Your task to perform on an android device: change your default location settings in chrome Image 0: 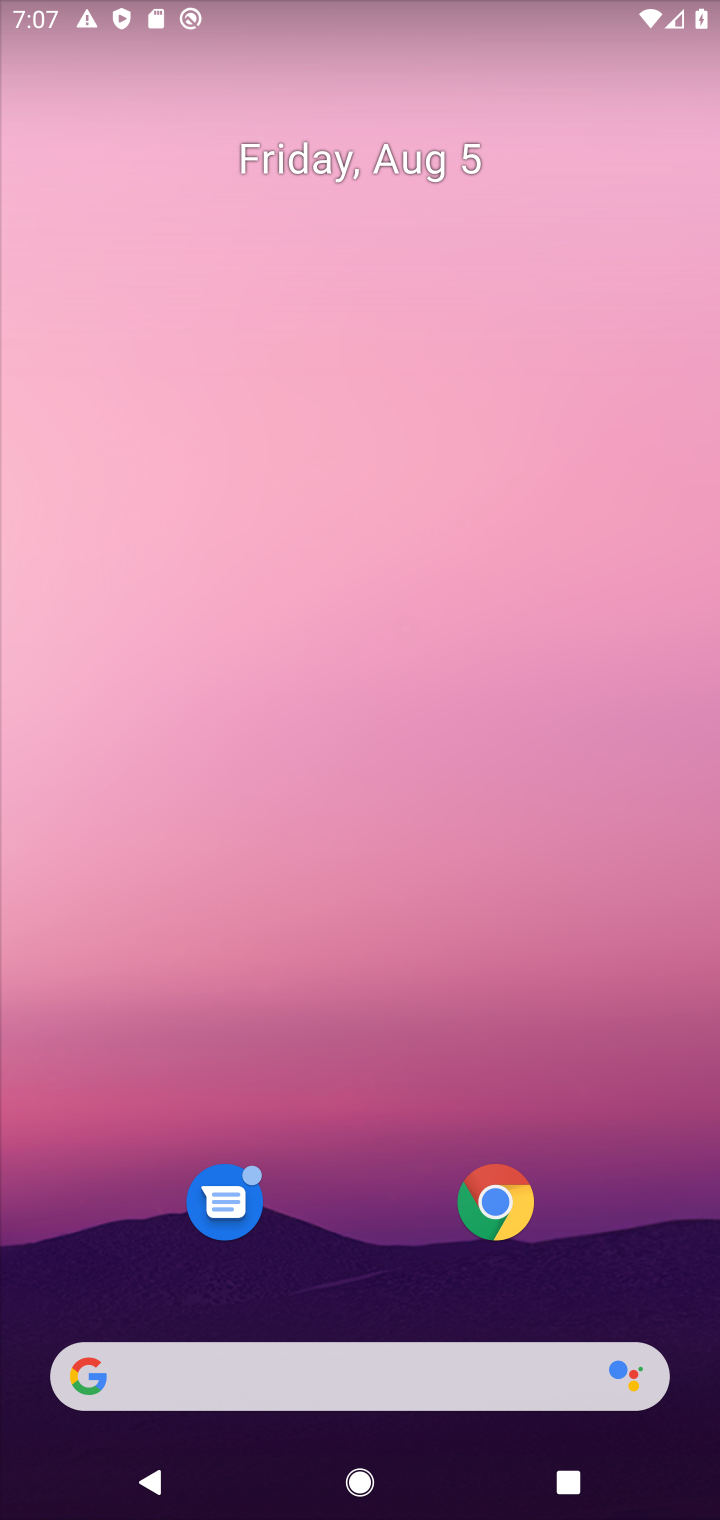
Step 0: drag from (368, 1356) to (535, 563)
Your task to perform on an android device: change your default location settings in chrome Image 1: 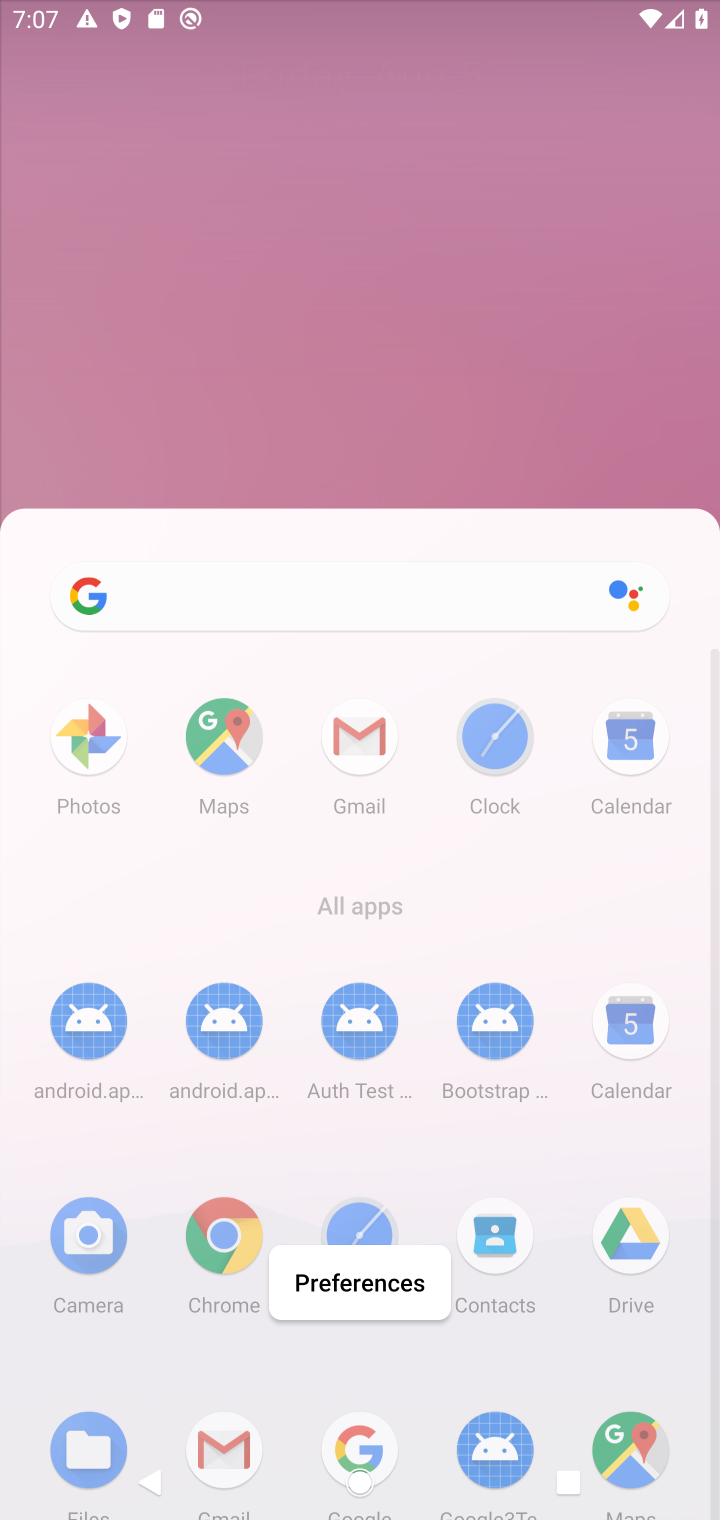
Step 1: drag from (475, 1212) to (581, 336)
Your task to perform on an android device: change your default location settings in chrome Image 2: 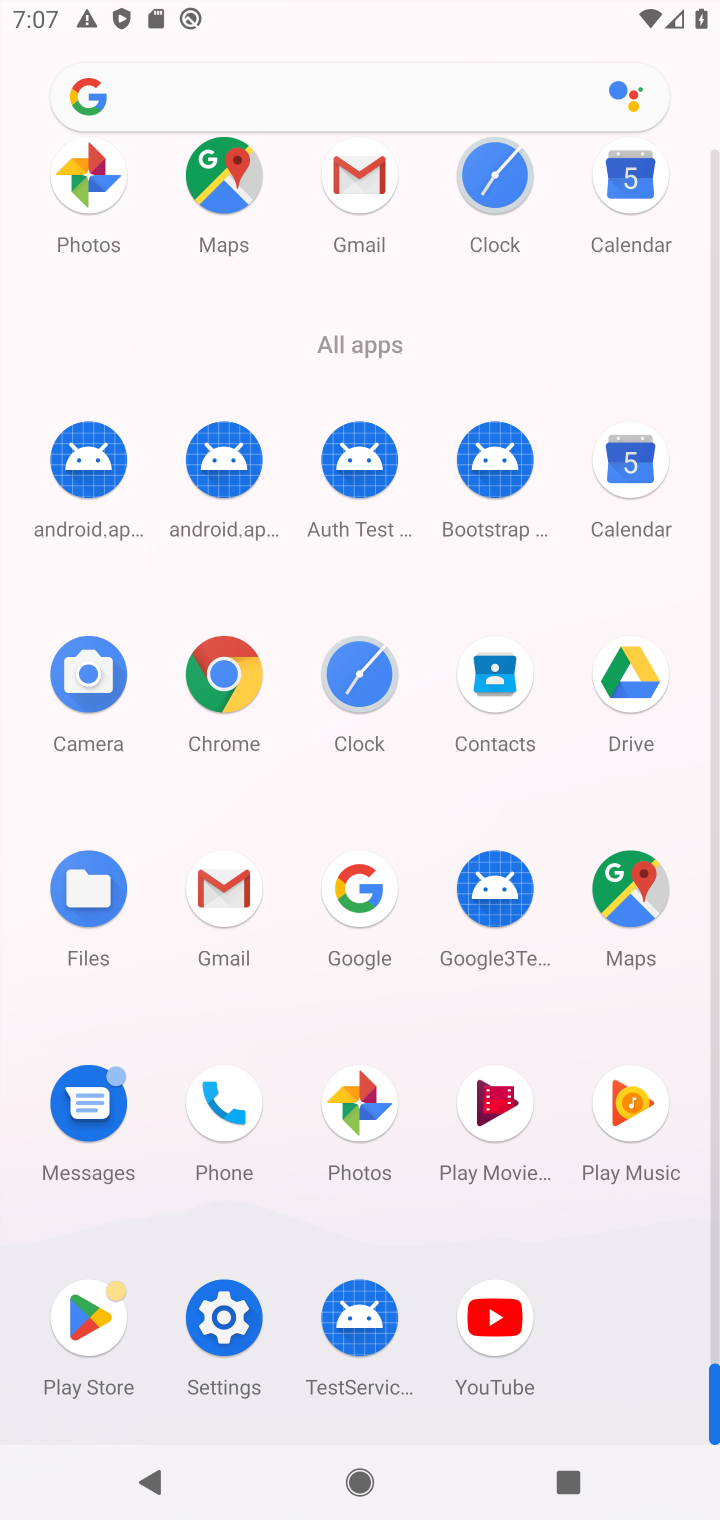
Step 2: click (203, 663)
Your task to perform on an android device: change your default location settings in chrome Image 3: 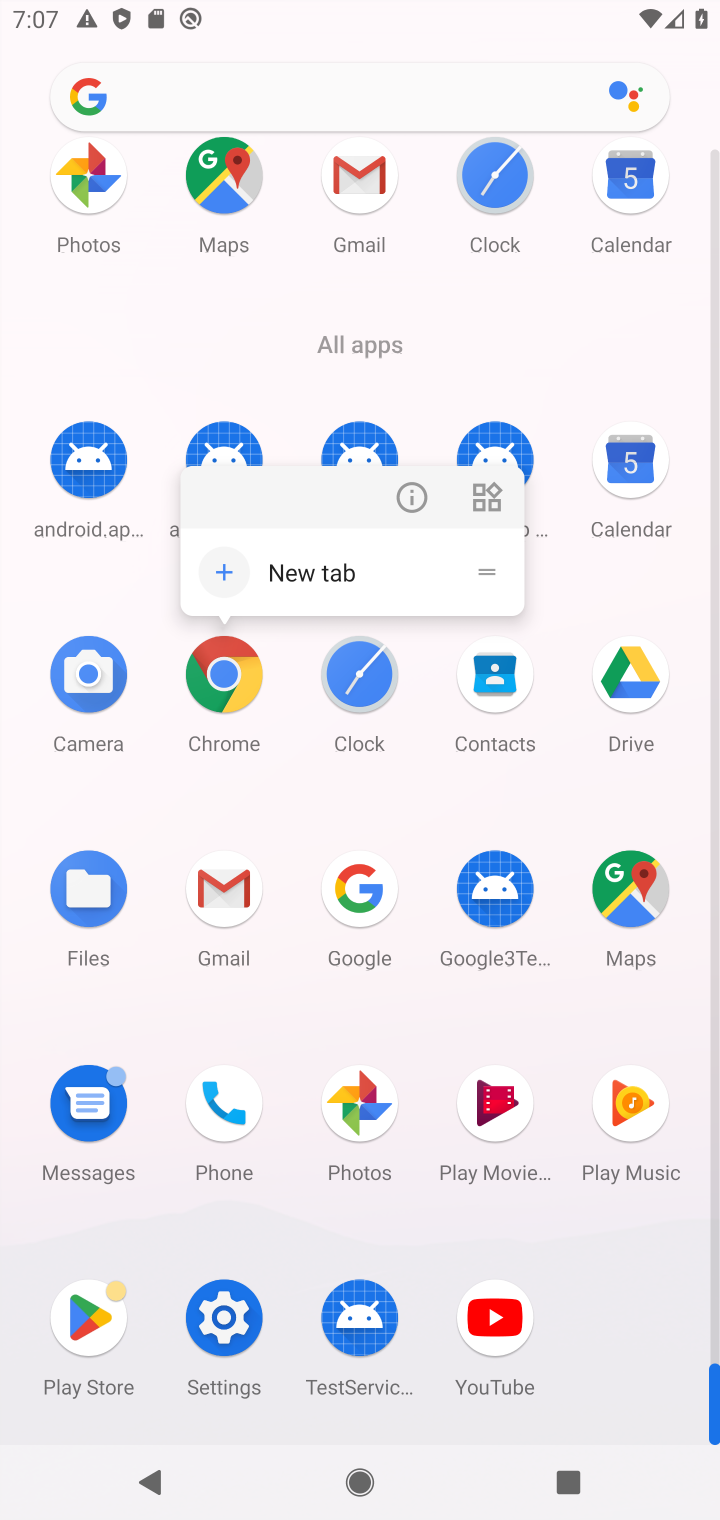
Step 3: click (418, 491)
Your task to perform on an android device: change your default location settings in chrome Image 4: 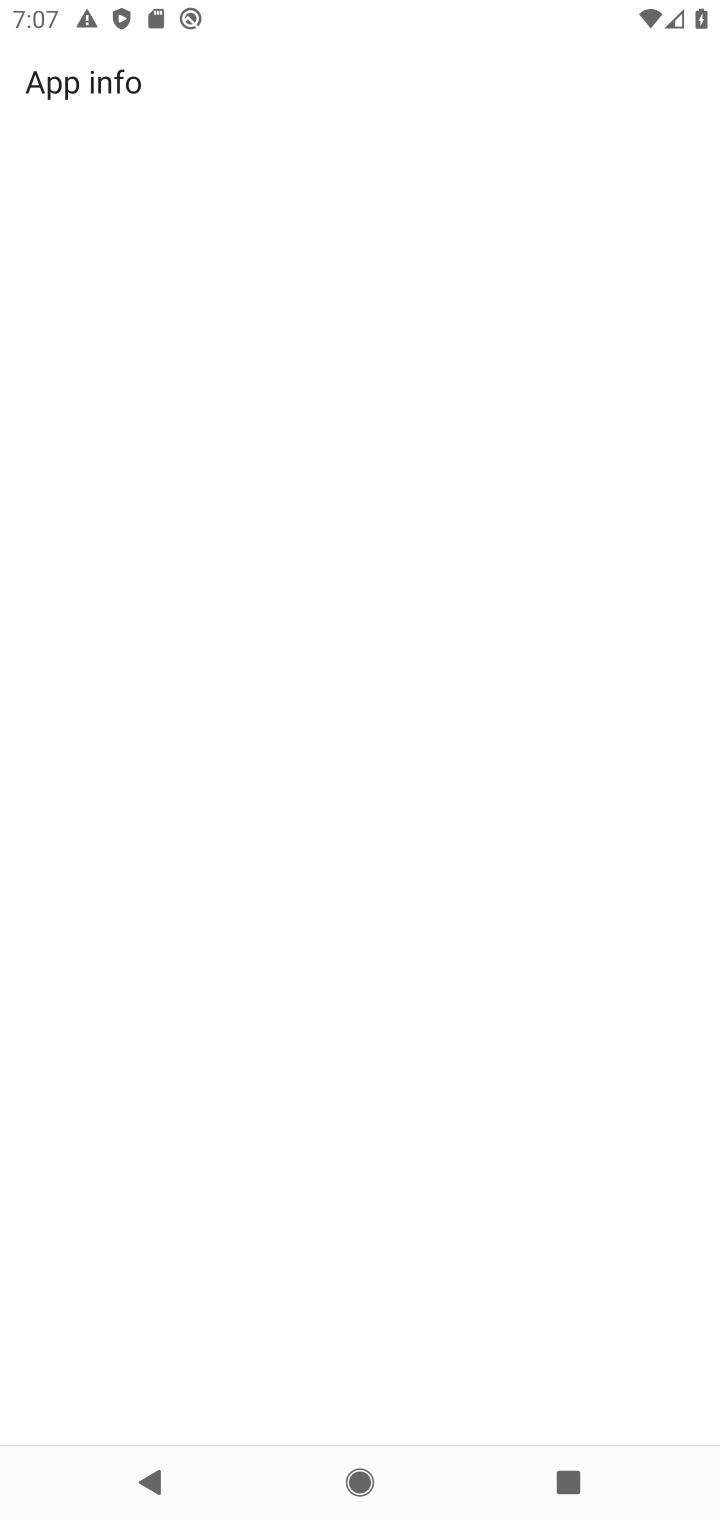
Step 4: drag from (443, 1161) to (460, 548)
Your task to perform on an android device: change your default location settings in chrome Image 5: 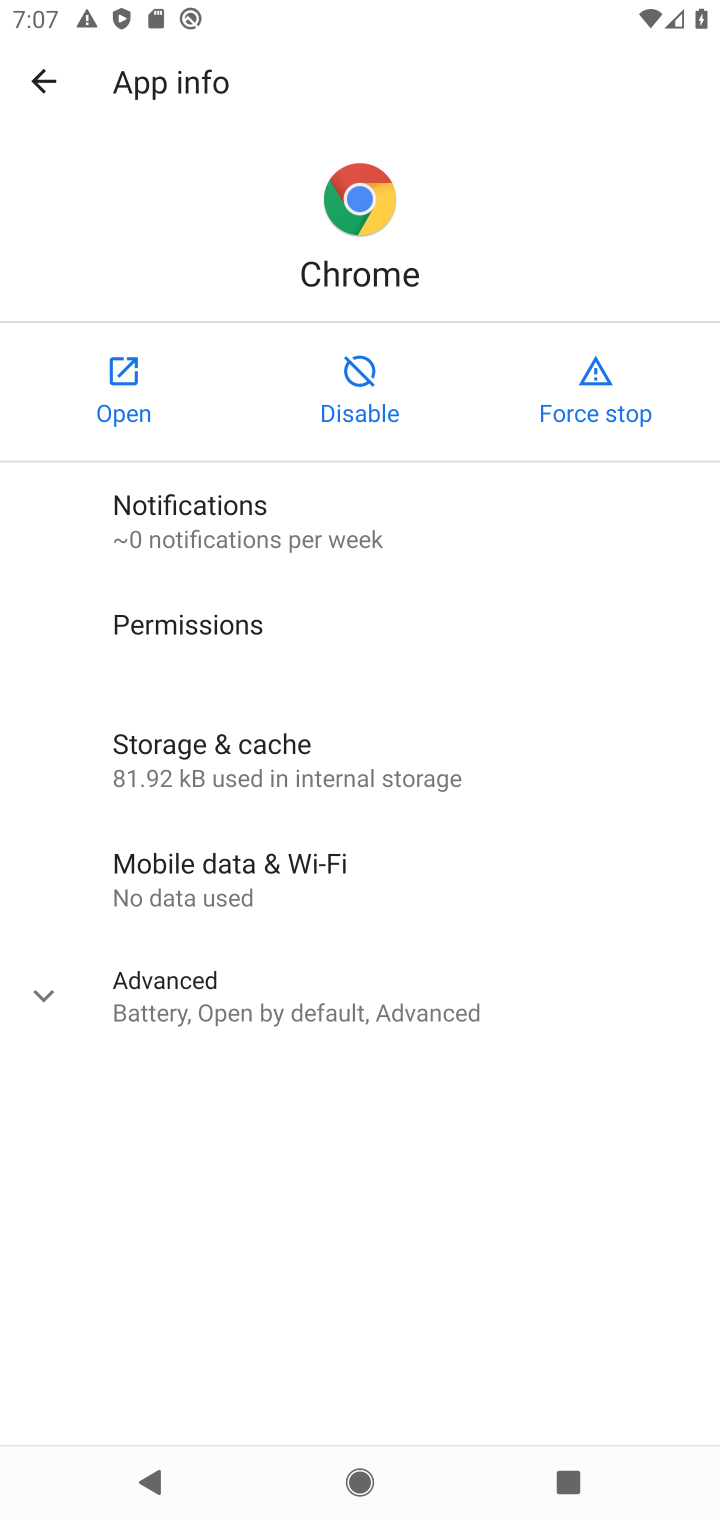
Step 5: click (126, 382)
Your task to perform on an android device: change your default location settings in chrome Image 6: 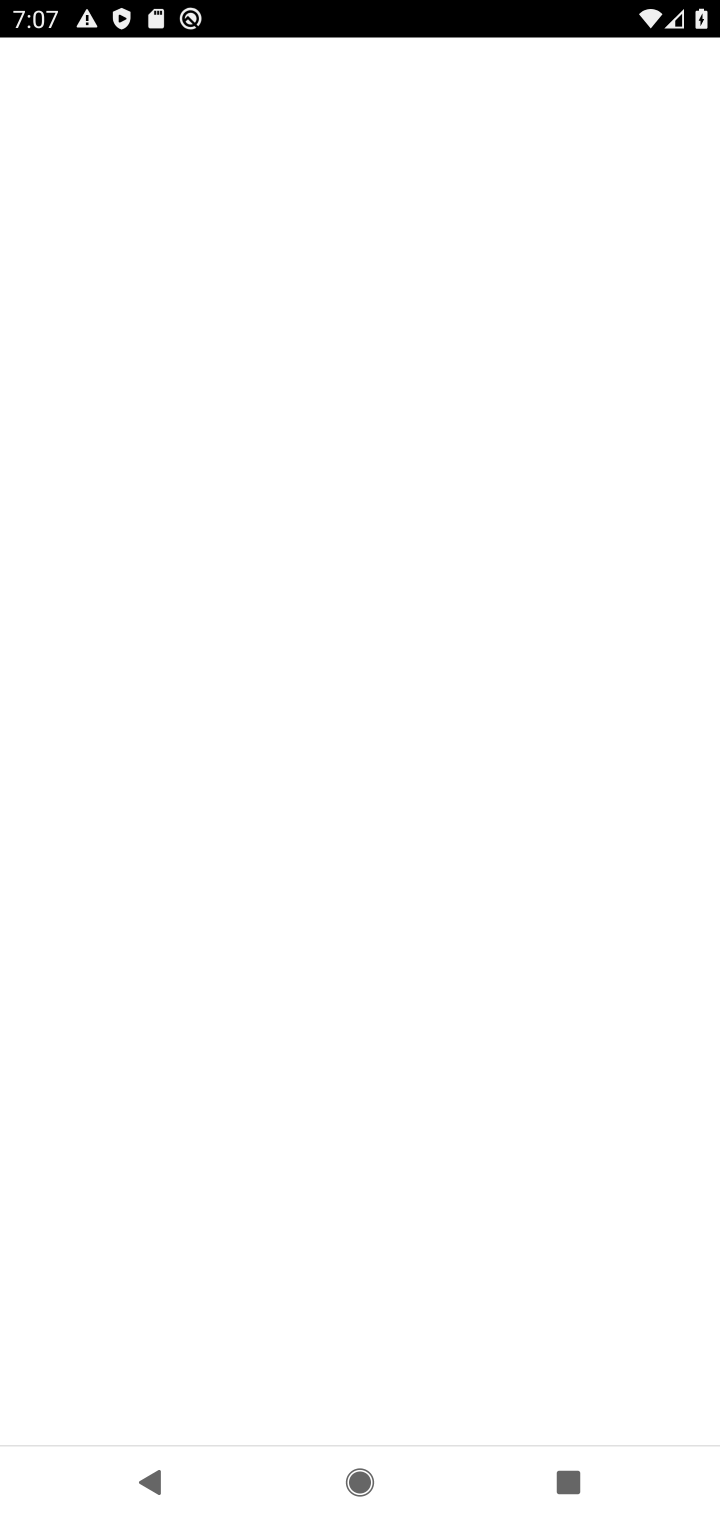
Step 6: drag from (393, 1038) to (441, 259)
Your task to perform on an android device: change your default location settings in chrome Image 7: 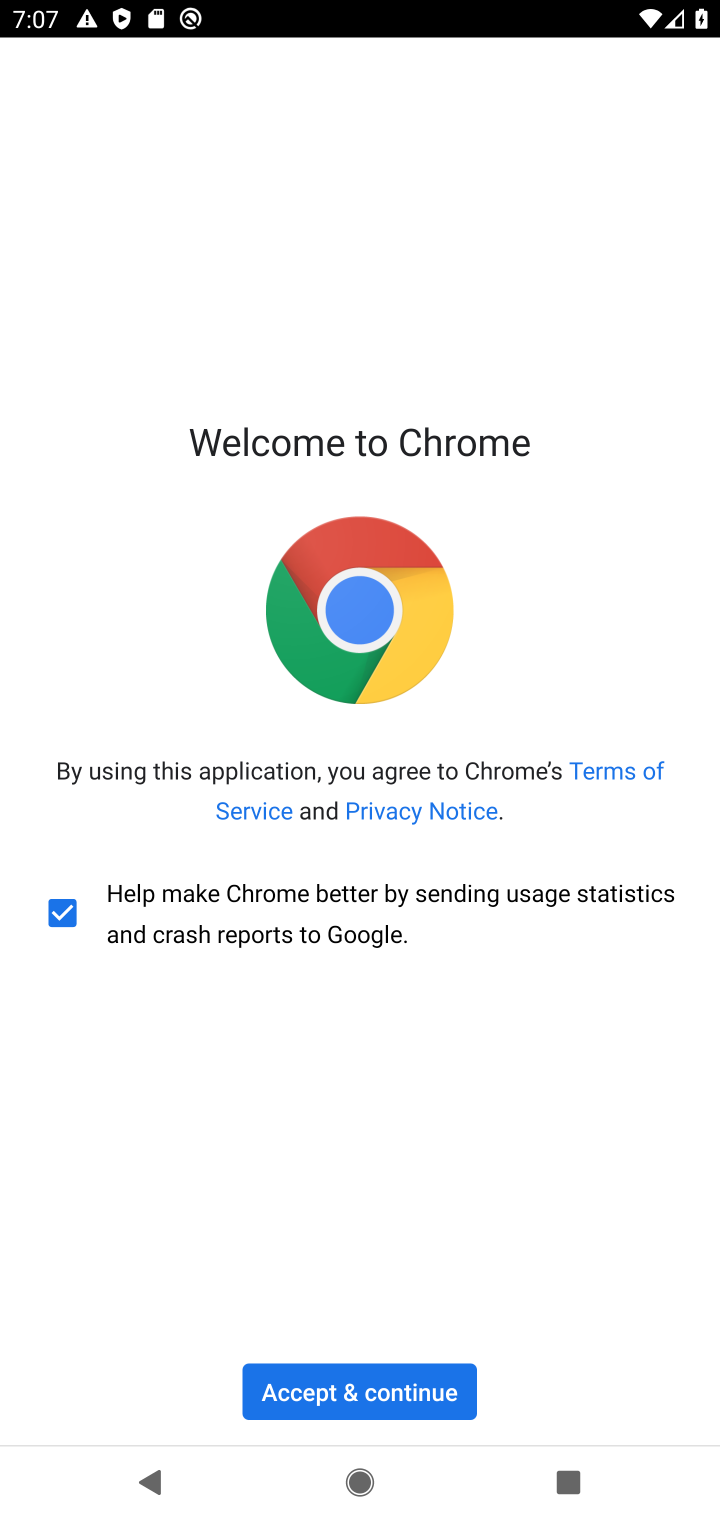
Step 7: click (338, 1387)
Your task to perform on an android device: change your default location settings in chrome Image 8: 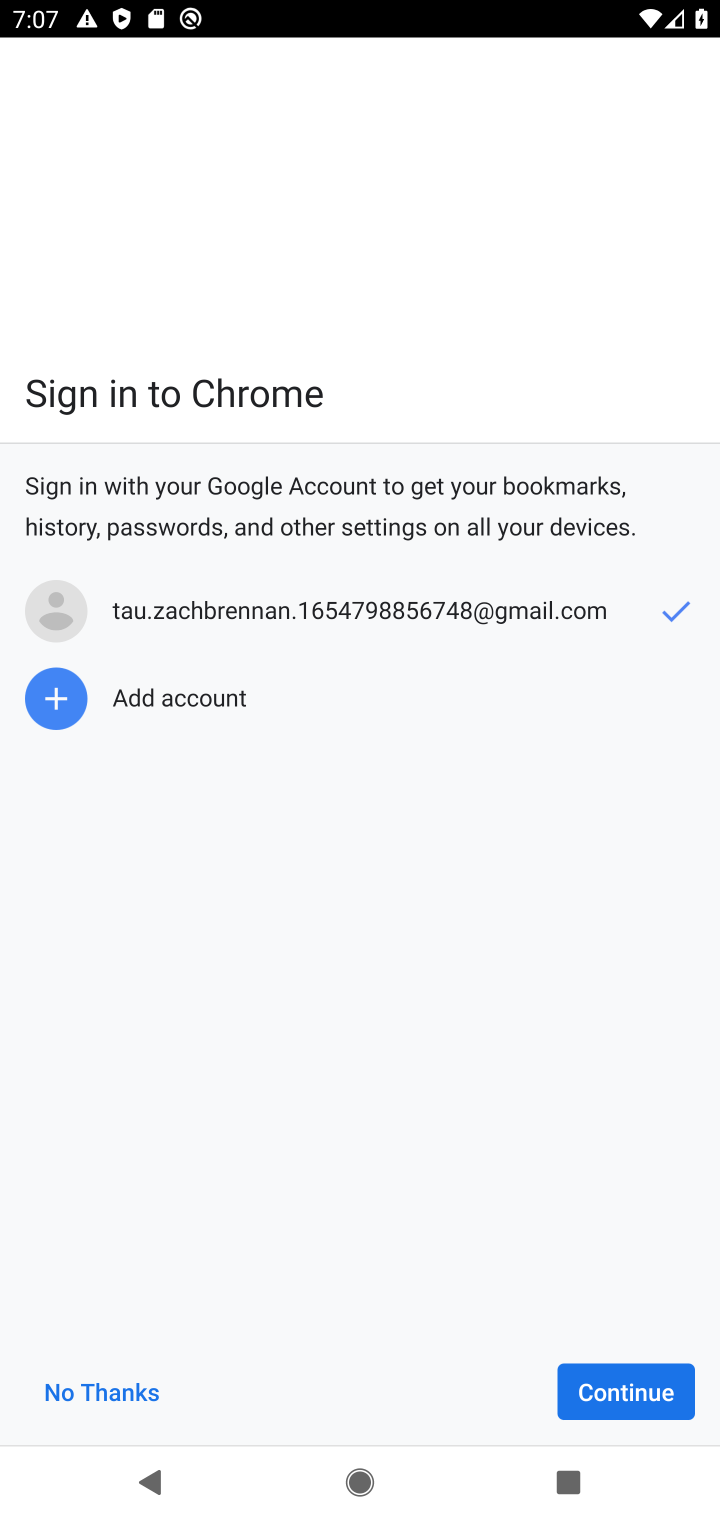
Step 8: click (602, 1397)
Your task to perform on an android device: change your default location settings in chrome Image 9: 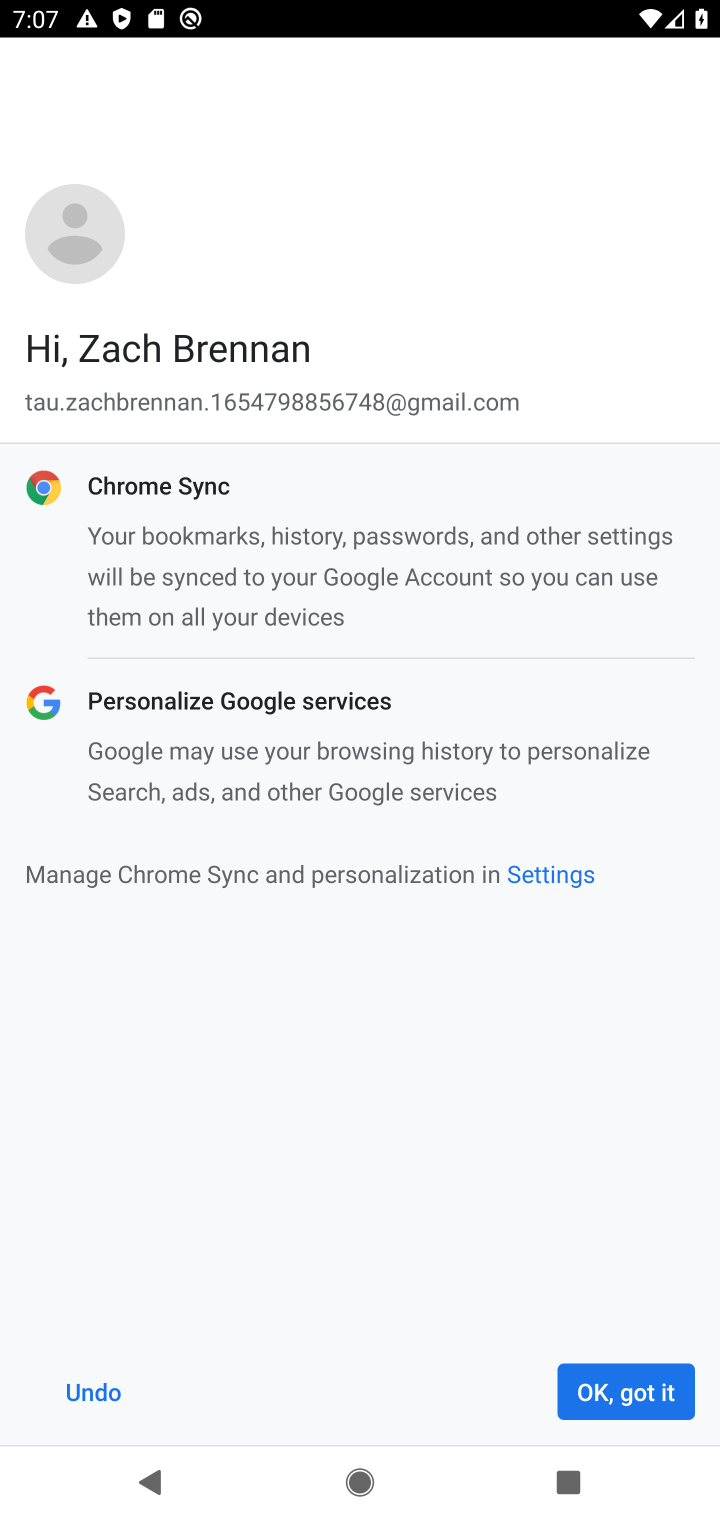
Step 9: click (578, 1397)
Your task to perform on an android device: change your default location settings in chrome Image 10: 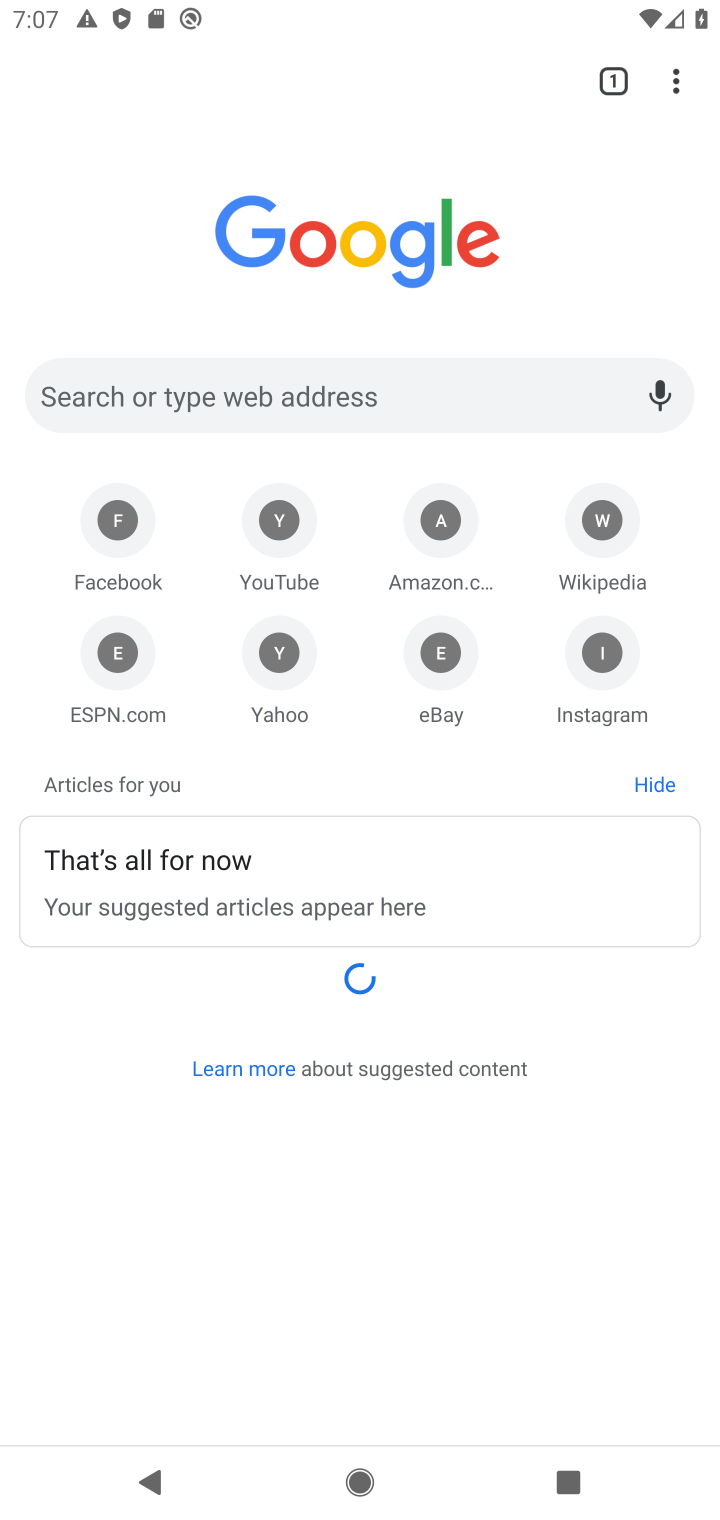
Step 10: drag from (340, 1179) to (492, 518)
Your task to perform on an android device: change your default location settings in chrome Image 11: 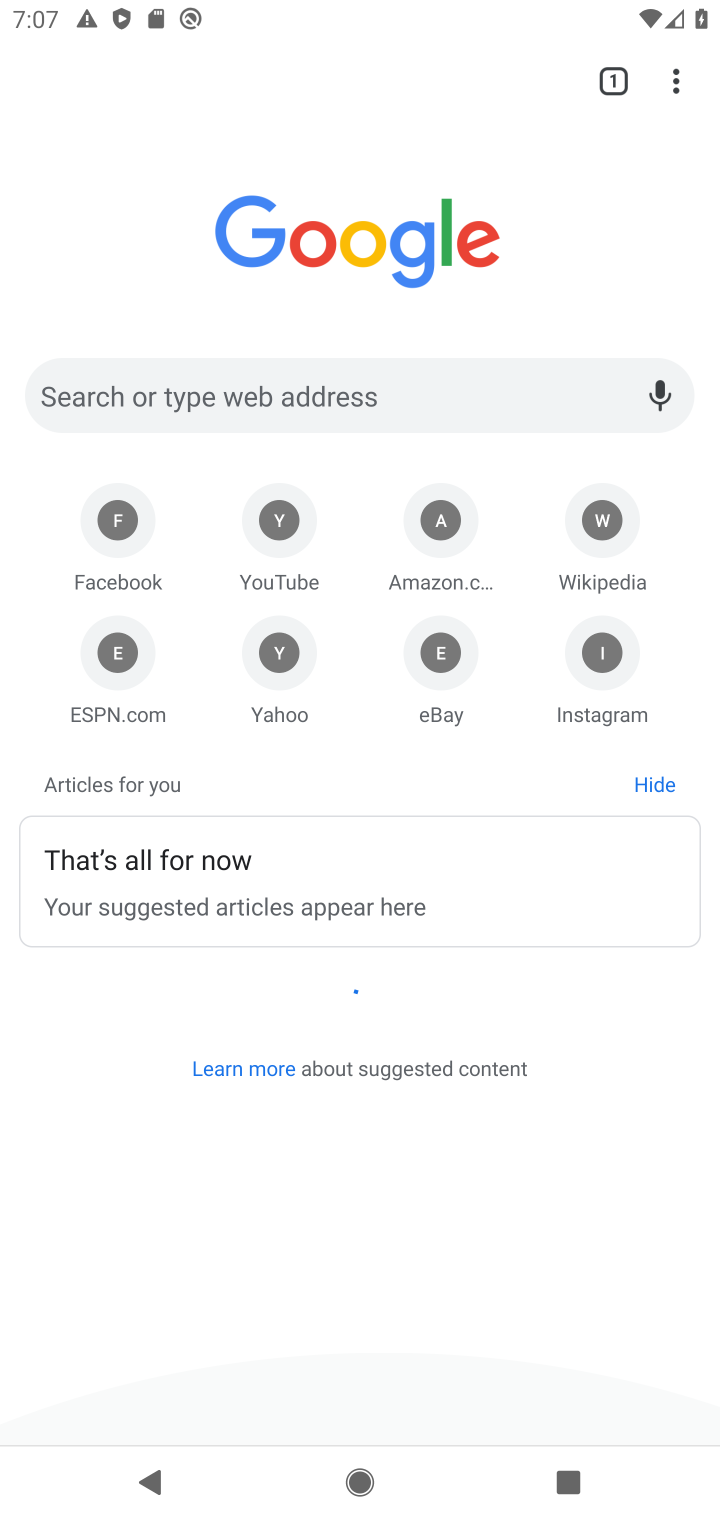
Step 11: drag from (425, 1090) to (439, 1330)
Your task to perform on an android device: change your default location settings in chrome Image 12: 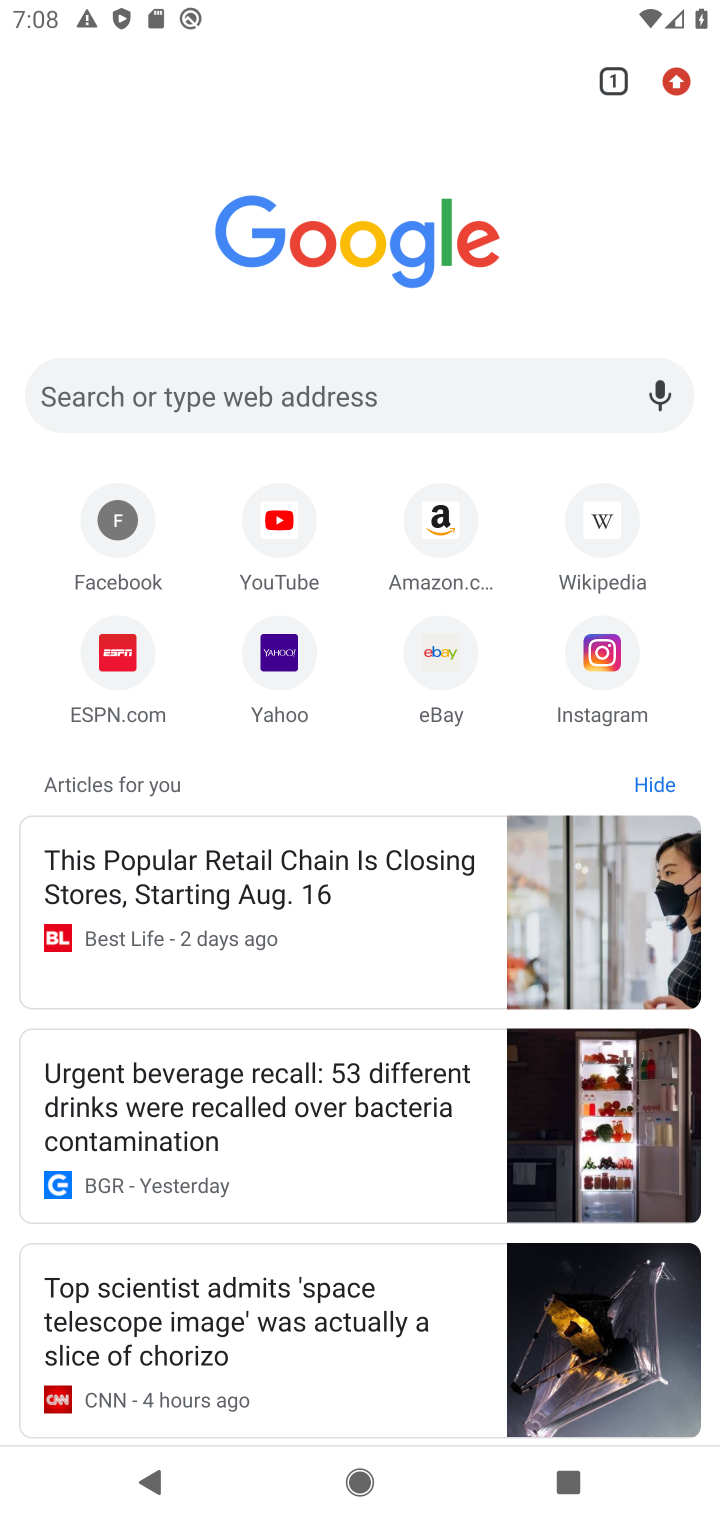
Step 12: drag from (685, 73) to (475, 745)
Your task to perform on an android device: change your default location settings in chrome Image 13: 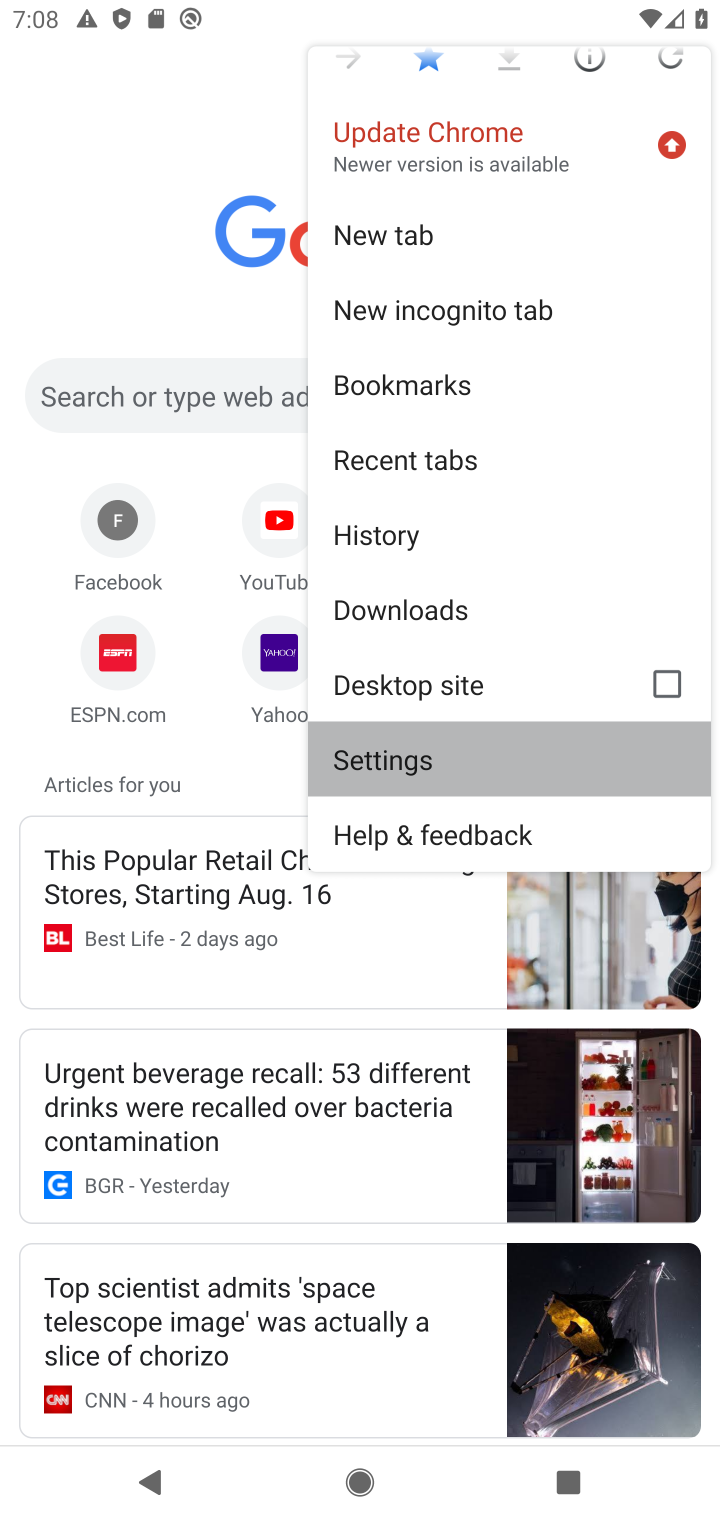
Step 13: click (468, 741)
Your task to perform on an android device: change your default location settings in chrome Image 14: 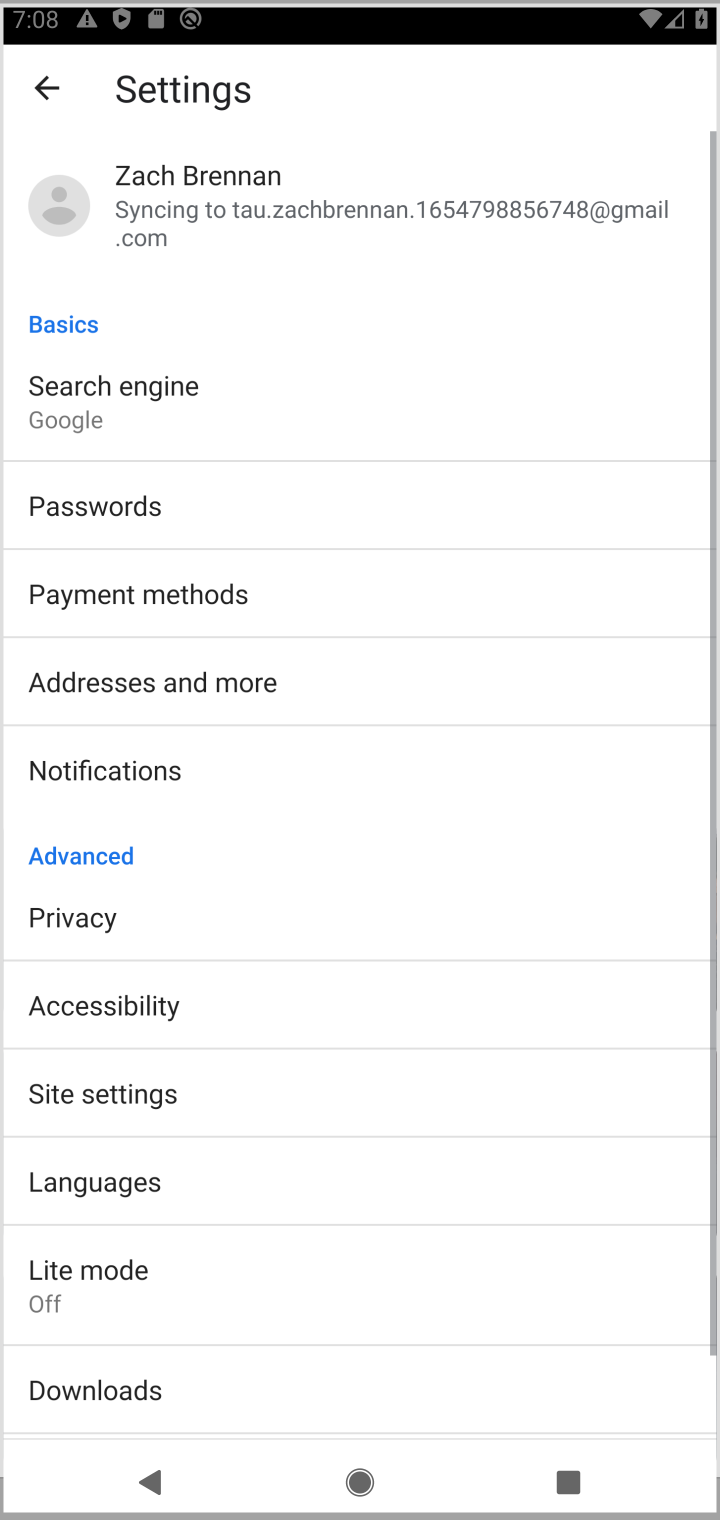
Step 14: drag from (275, 1160) to (380, 400)
Your task to perform on an android device: change your default location settings in chrome Image 15: 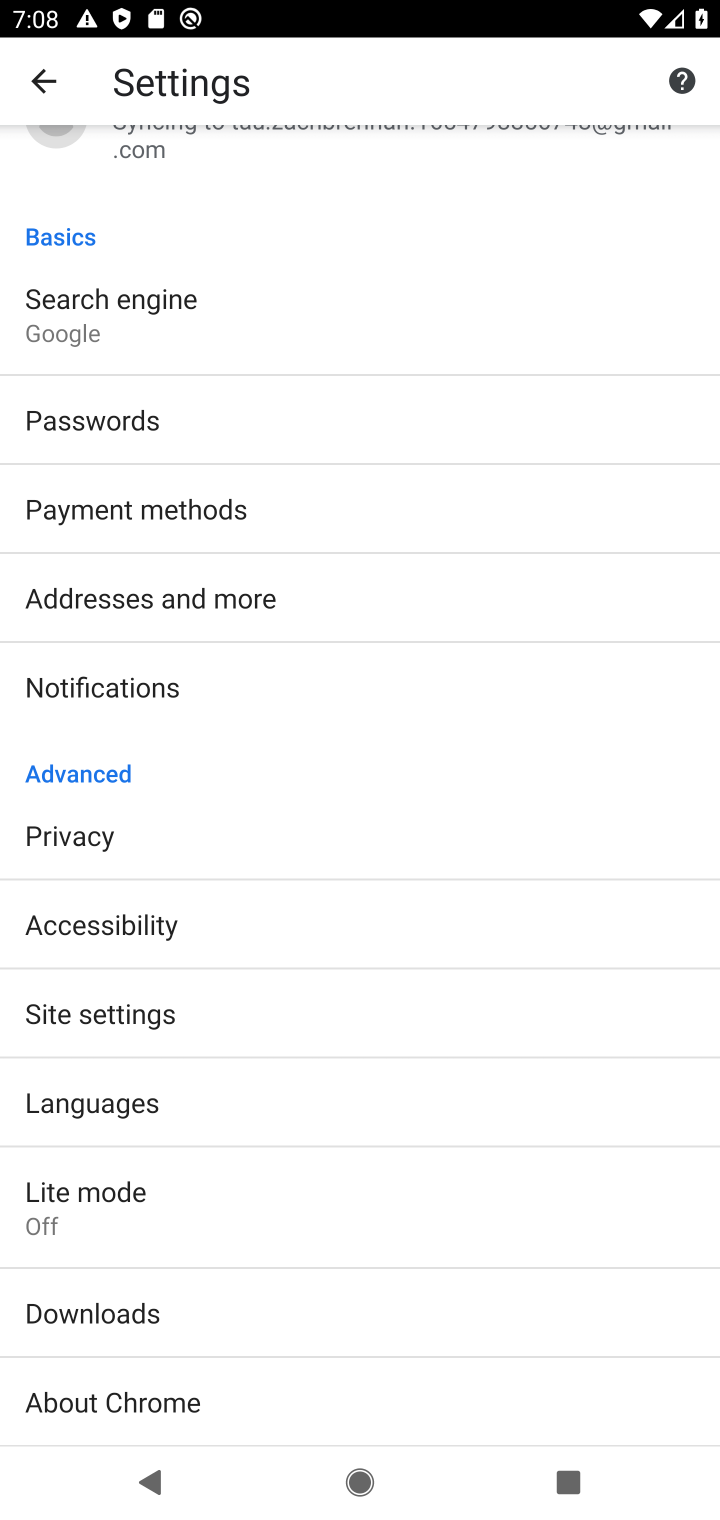
Step 15: click (132, 1008)
Your task to perform on an android device: change your default location settings in chrome Image 16: 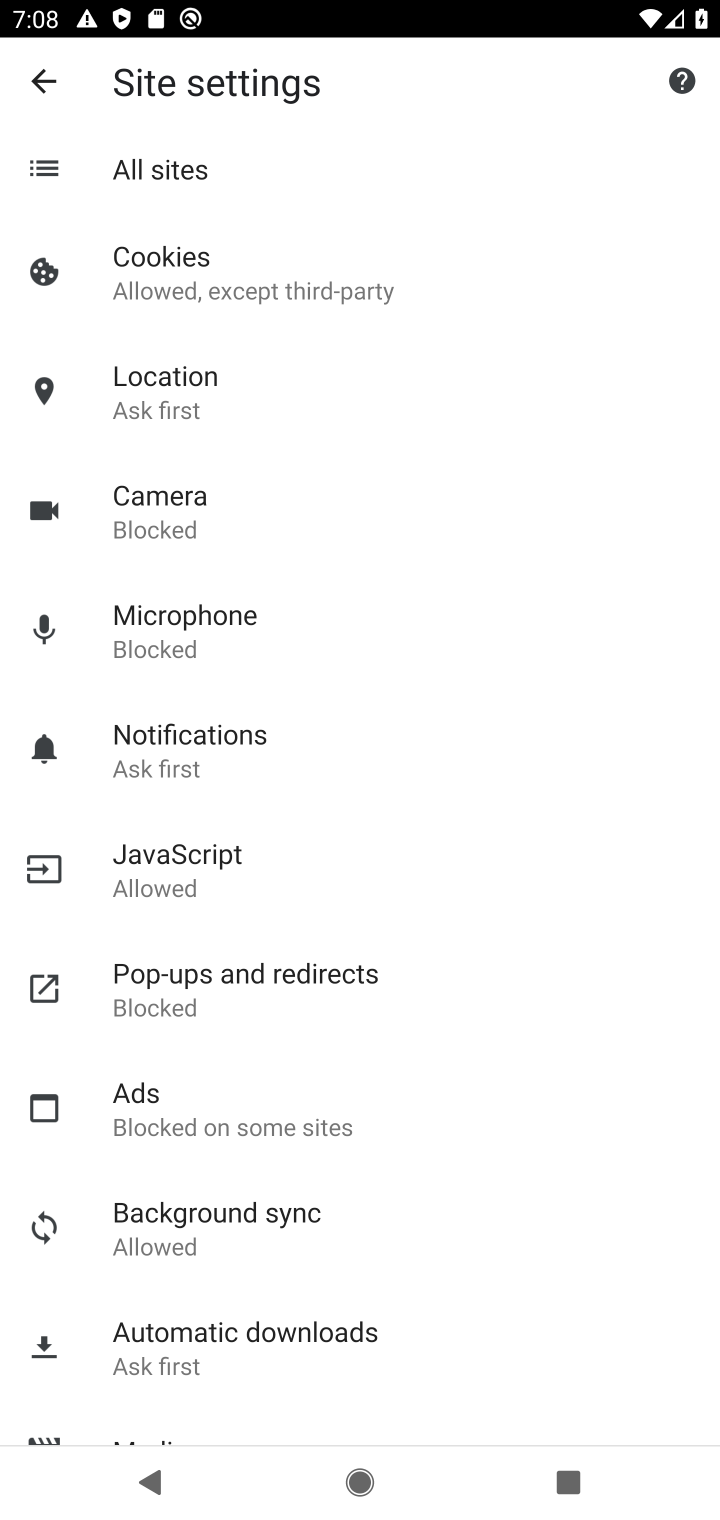
Step 16: click (208, 405)
Your task to perform on an android device: change your default location settings in chrome Image 17: 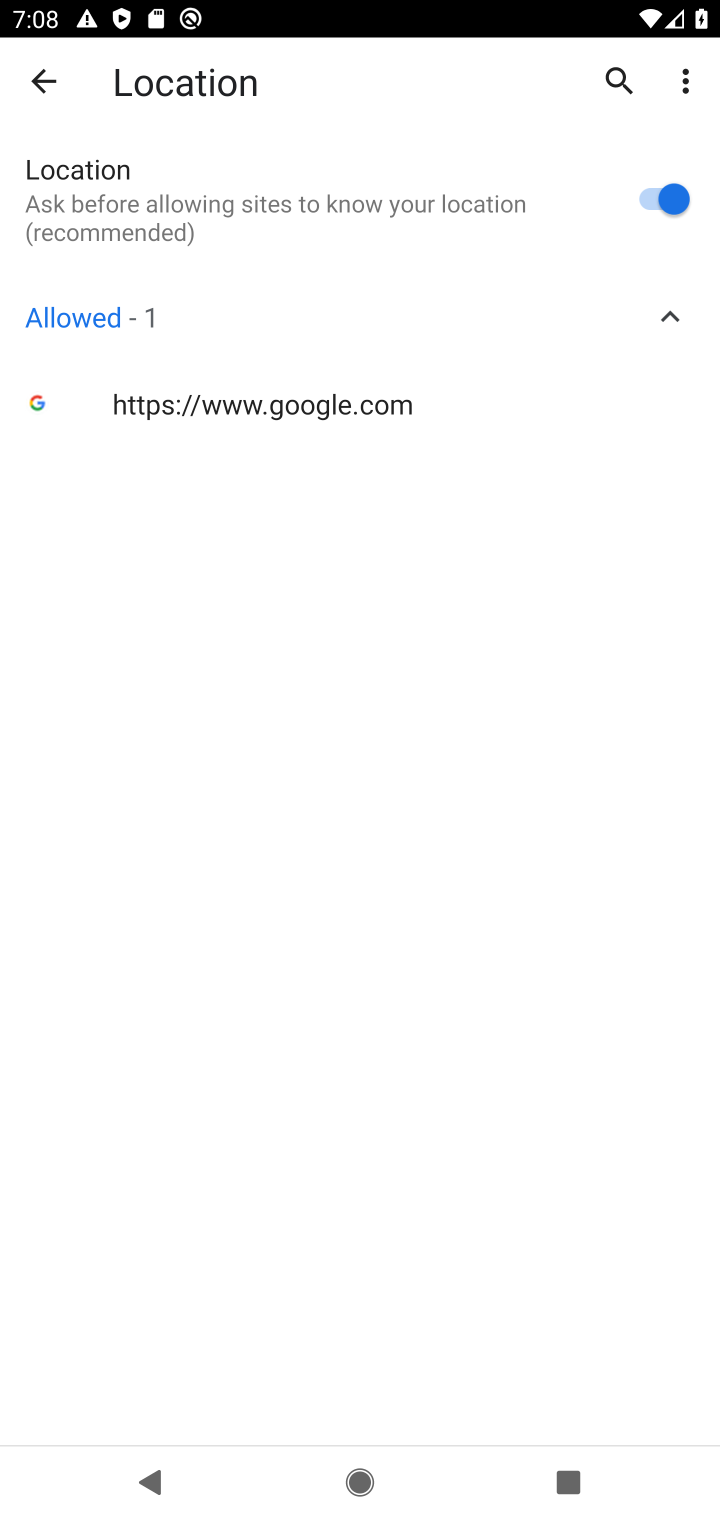
Step 17: task complete